Your task to perform on an android device: open app "DuckDuckGo Privacy Browser" (install if not already installed) and go to login screen Image 0: 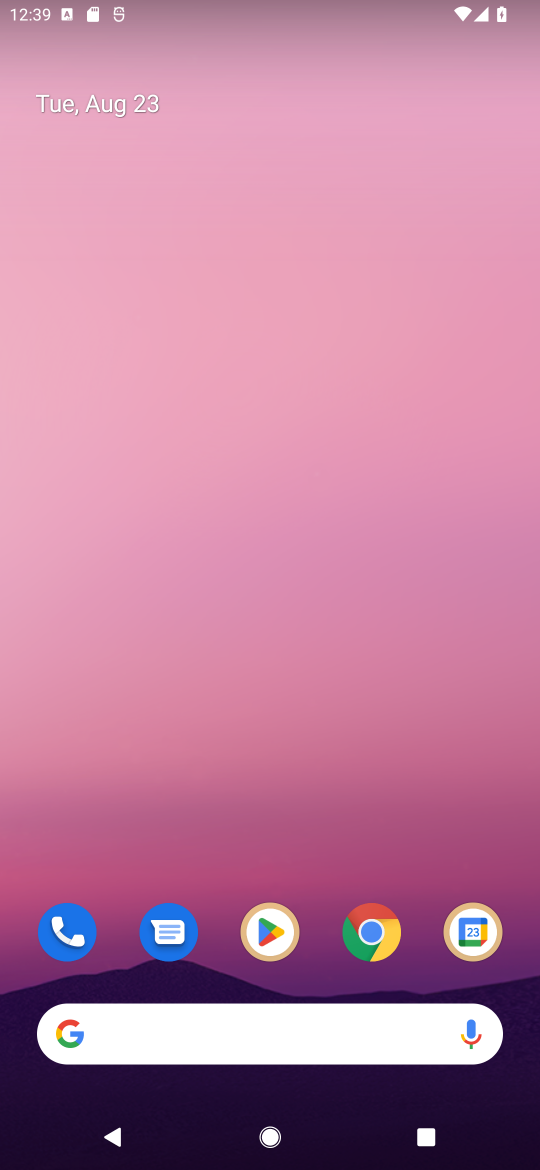
Step 0: click (268, 932)
Your task to perform on an android device: open app "DuckDuckGo Privacy Browser" (install if not already installed) and go to login screen Image 1: 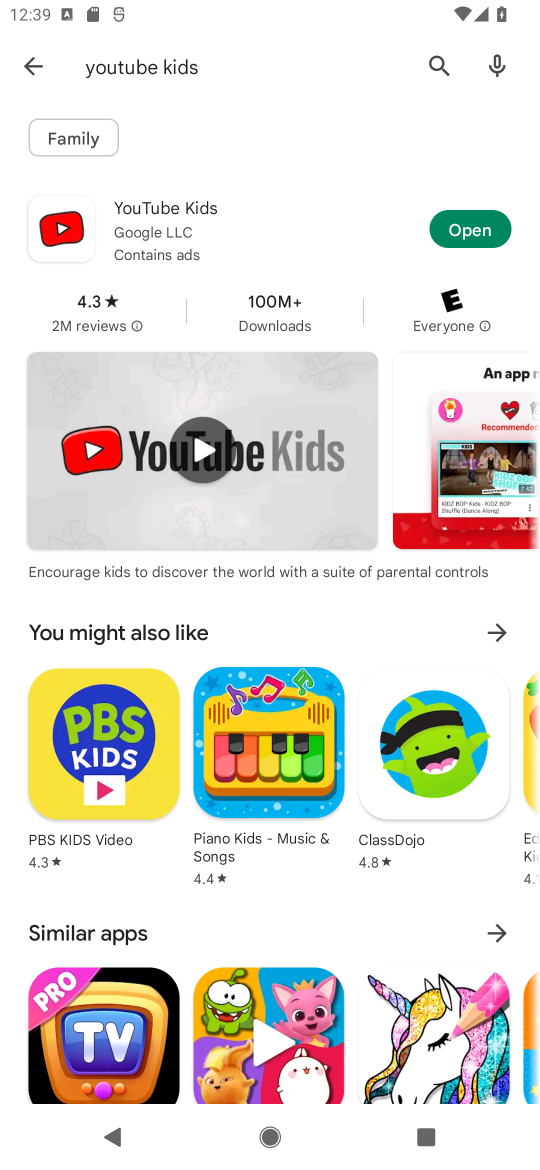
Step 1: click (433, 60)
Your task to perform on an android device: open app "DuckDuckGo Privacy Browser" (install if not already installed) and go to login screen Image 2: 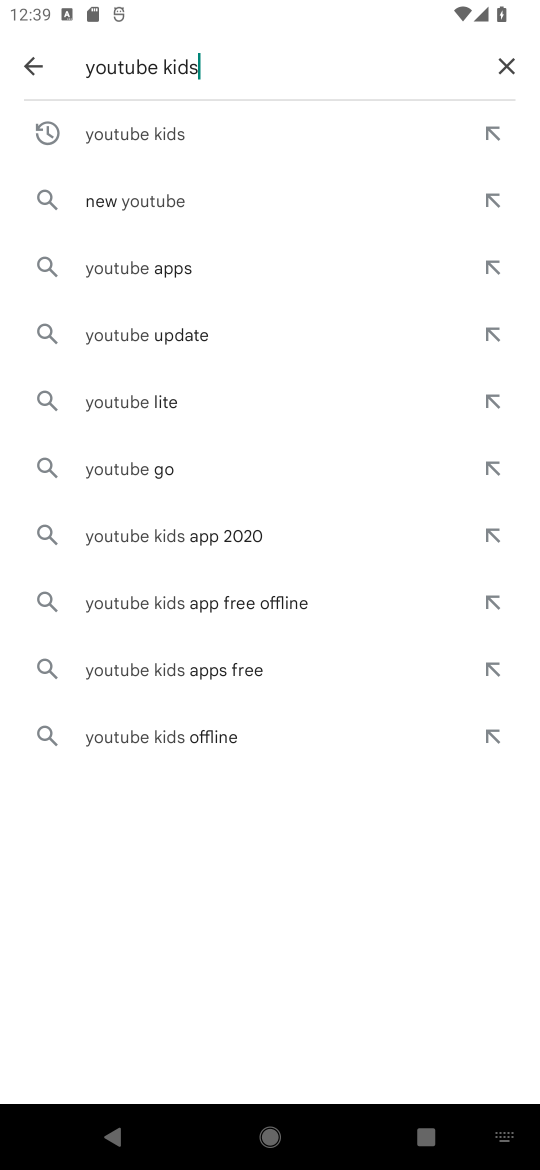
Step 2: click (510, 59)
Your task to perform on an android device: open app "DuckDuckGo Privacy Browser" (install if not already installed) and go to login screen Image 3: 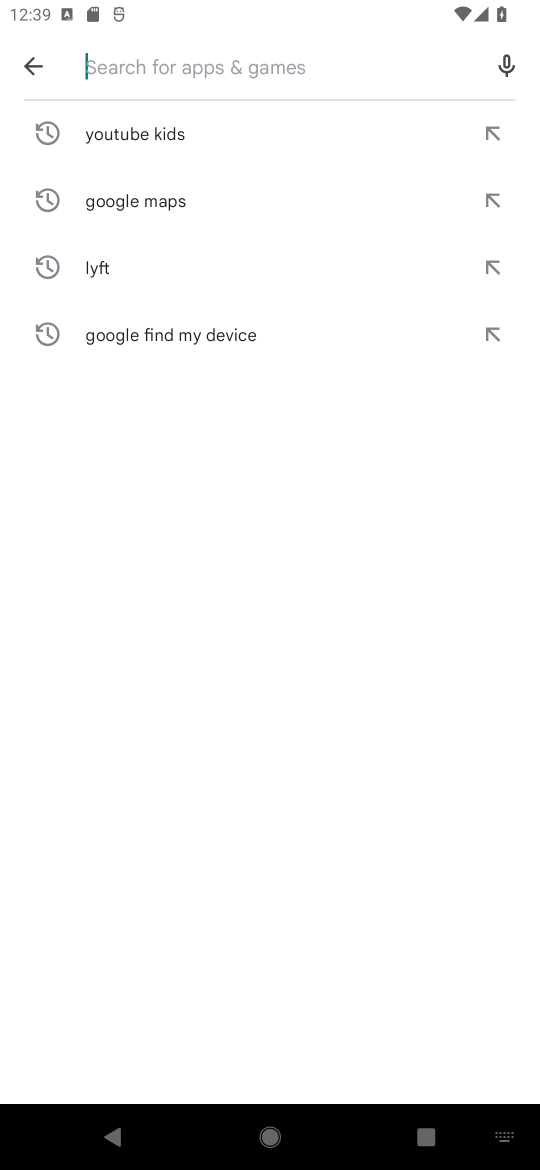
Step 3: click (199, 52)
Your task to perform on an android device: open app "DuckDuckGo Privacy Browser" (install if not already installed) and go to login screen Image 4: 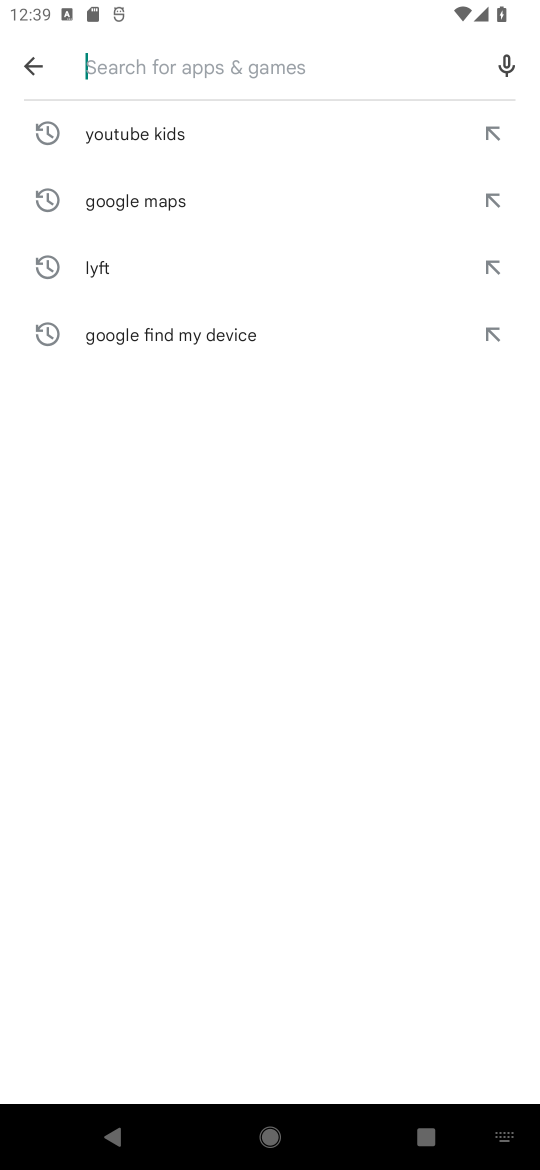
Step 4: type "DuckDuckGo Privacy Browser"
Your task to perform on an android device: open app "DuckDuckGo Privacy Browser" (install if not already installed) and go to login screen Image 5: 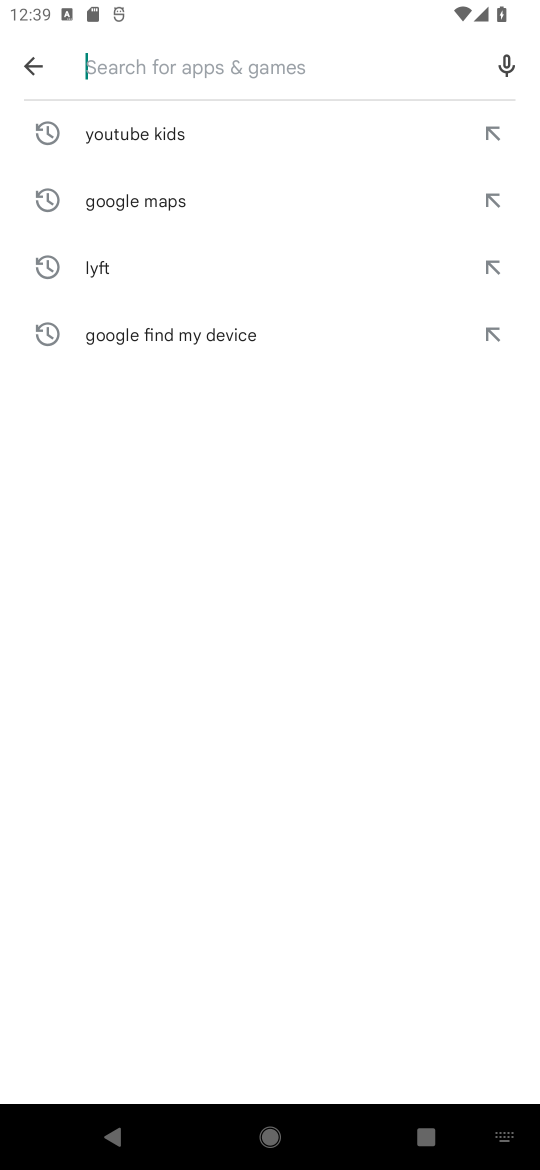
Step 5: click (152, 720)
Your task to perform on an android device: open app "DuckDuckGo Privacy Browser" (install if not already installed) and go to login screen Image 6: 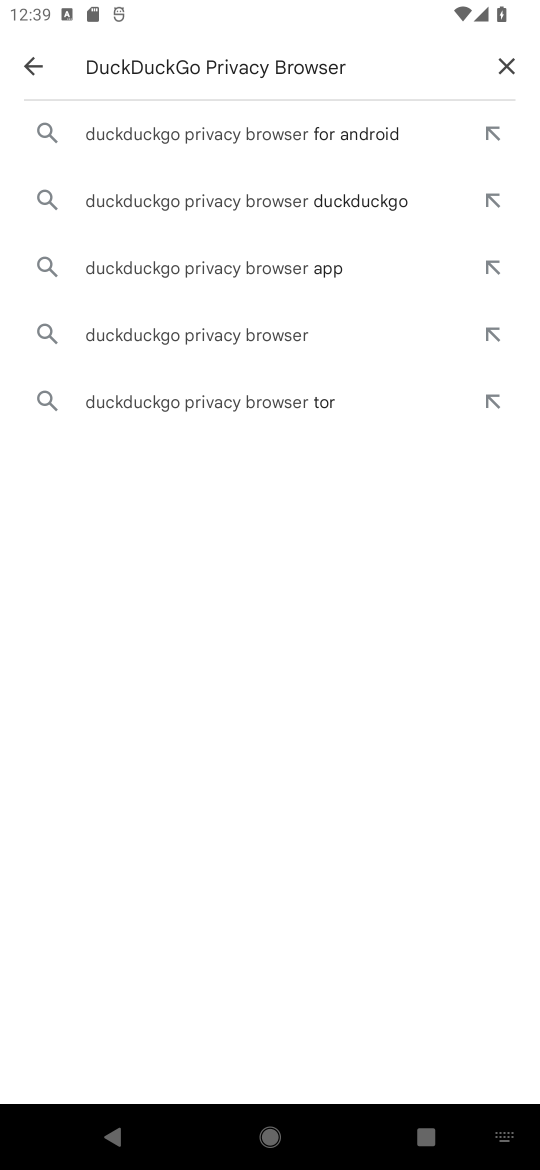
Step 6: click (291, 137)
Your task to perform on an android device: open app "DuckDuckGo Privacy Browser" (install if not already installed) and go to login screen Image 7: 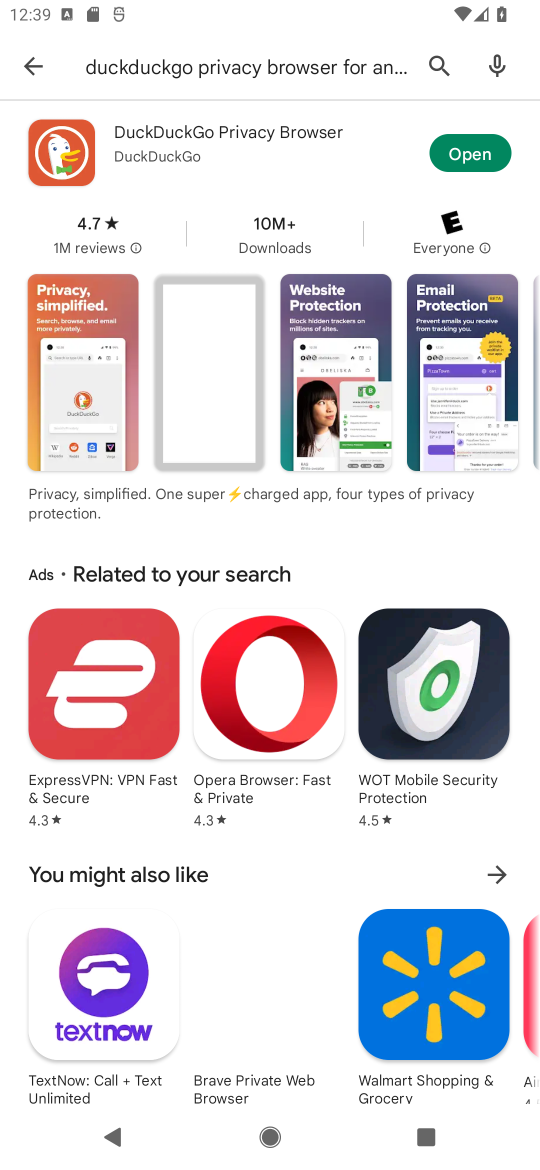
Step 7: click (464, 142)
Your task to perform on an android device: open app "DuckDuckGo Privacy Browser" (install if not already installed) and go to login screen Image 8: 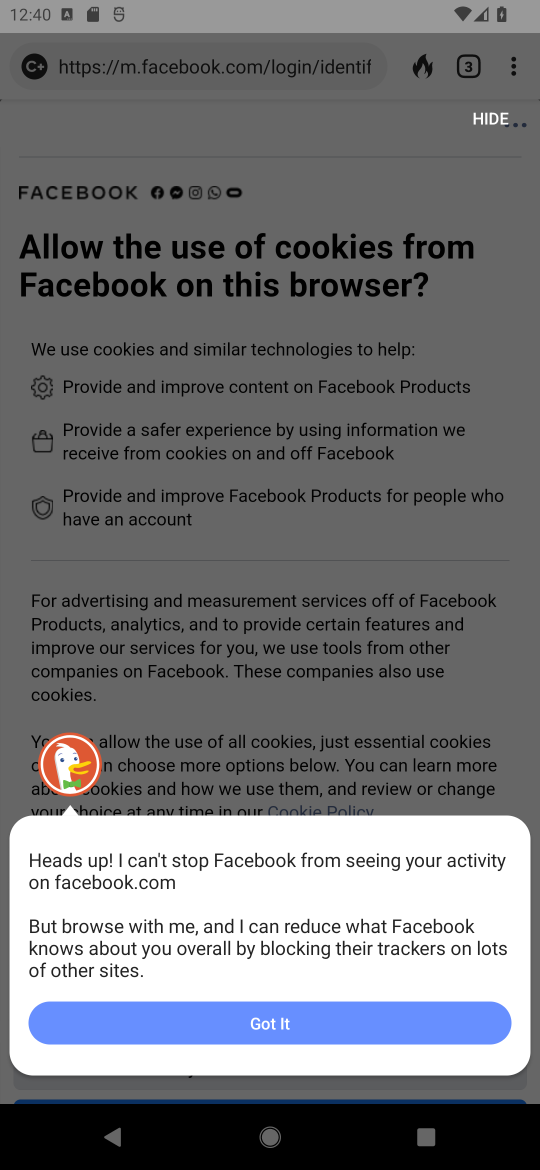
Step 8: click (299, 1018)
Your task to perform on an android device: open app "DuckDuckGo Privacy Browser" (install if not already installed) and go to login screen Image 9: 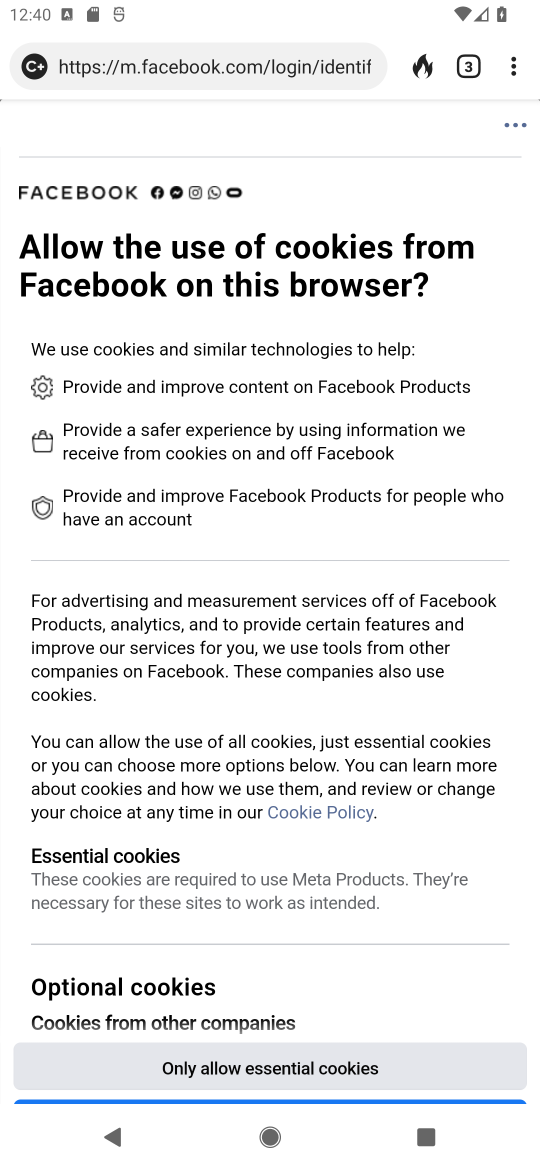
Step 9: task complete